Your task to perform on an android device: Go to internet settings Image 0: 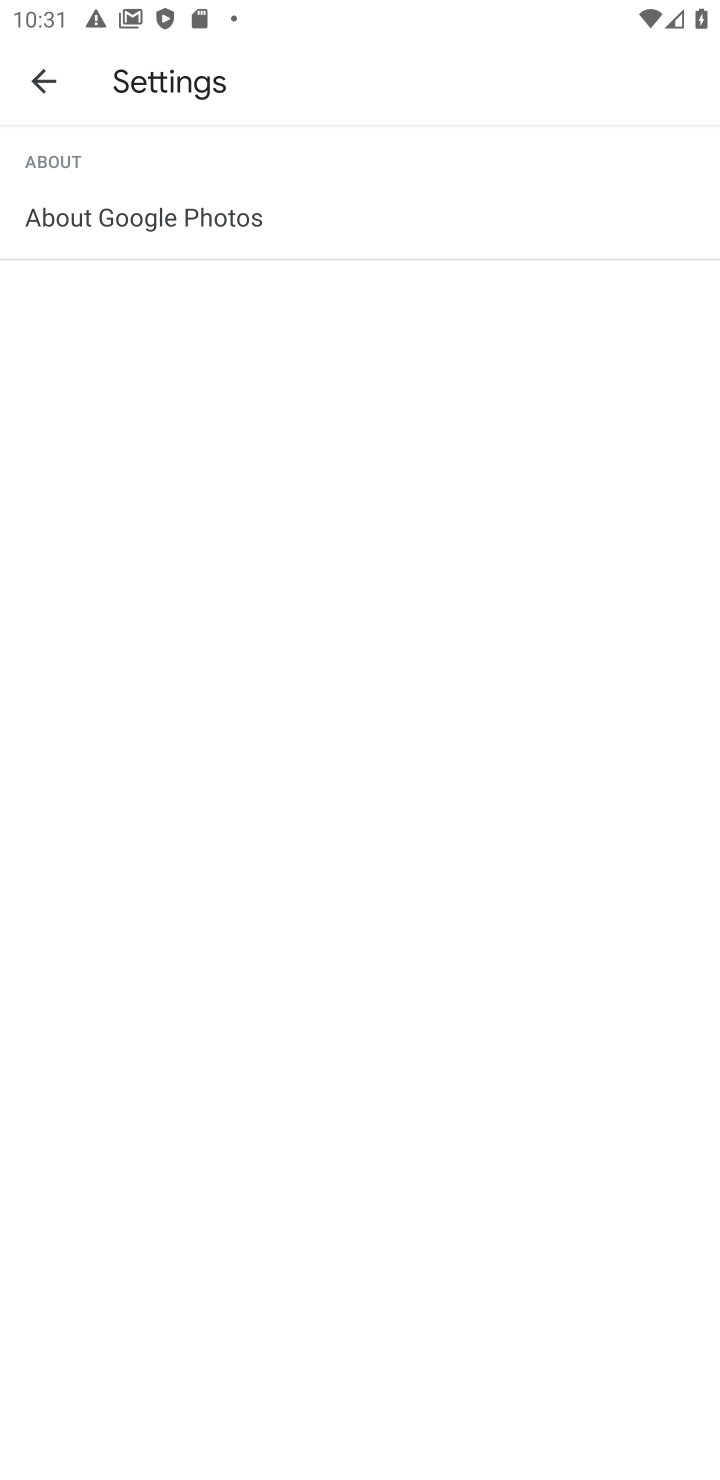
Step 0: press home button
Your task to perform on an android device: Go to internet settings Image 1: 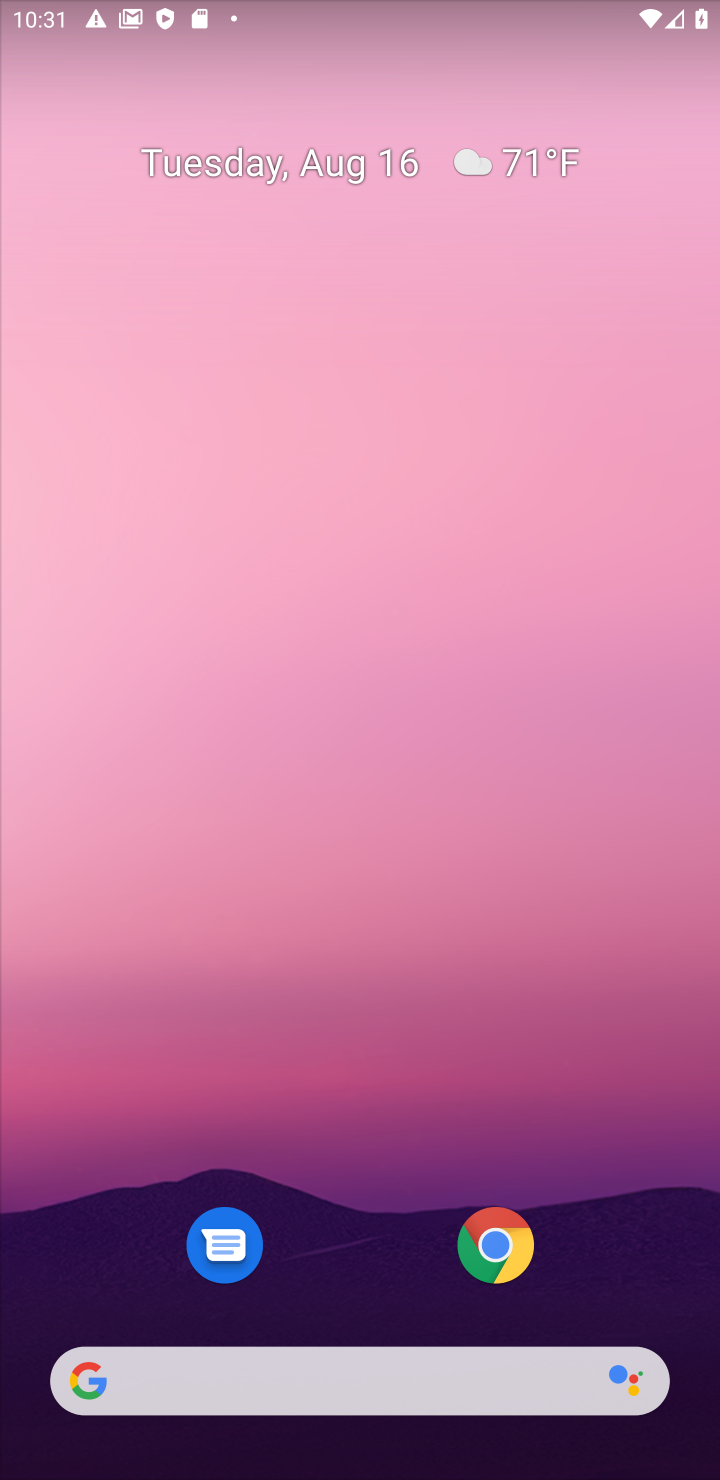
Step 1: drag from (641, 1205) to (591, 233)
Your task to perform on an android device: Go to internet settings Image 2: 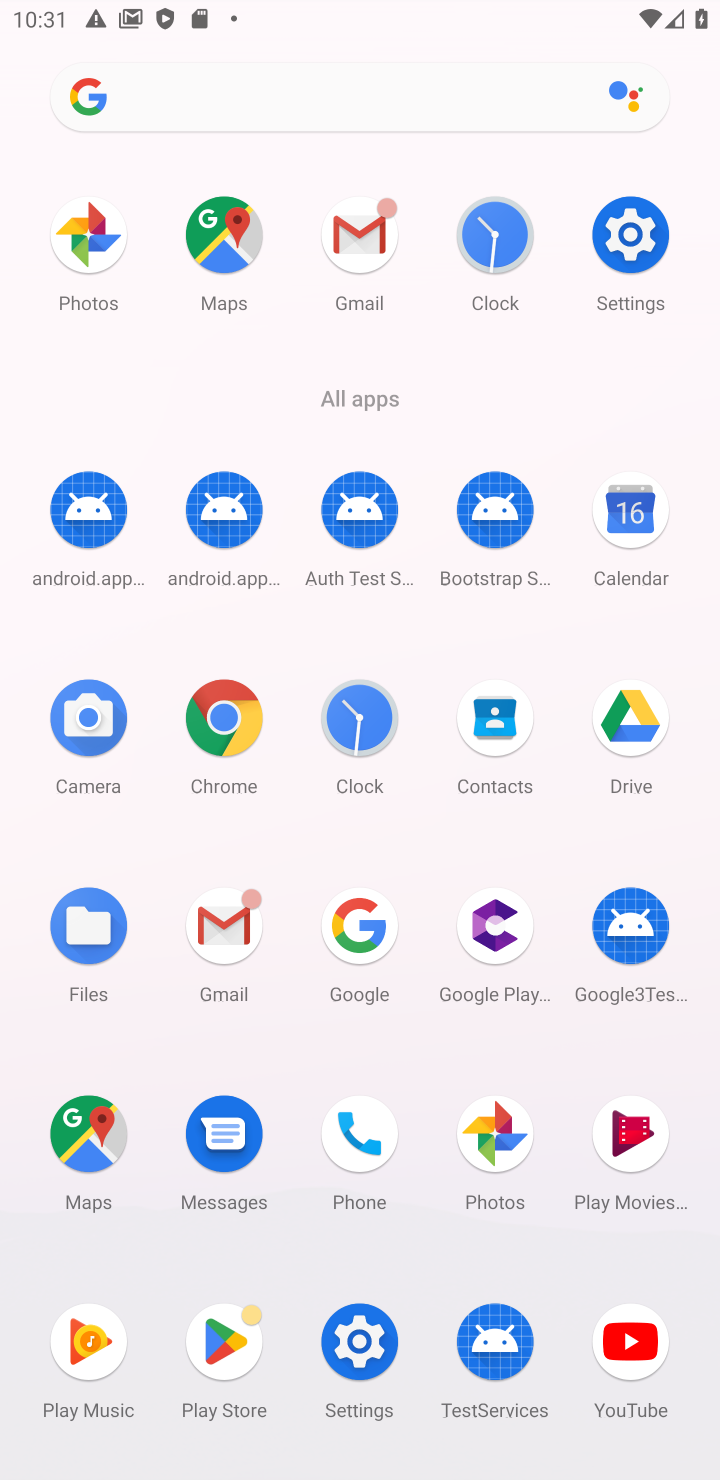
Step 2: click (624, 239)
Your task to perform on an android device: Go to internet settings Image 3: 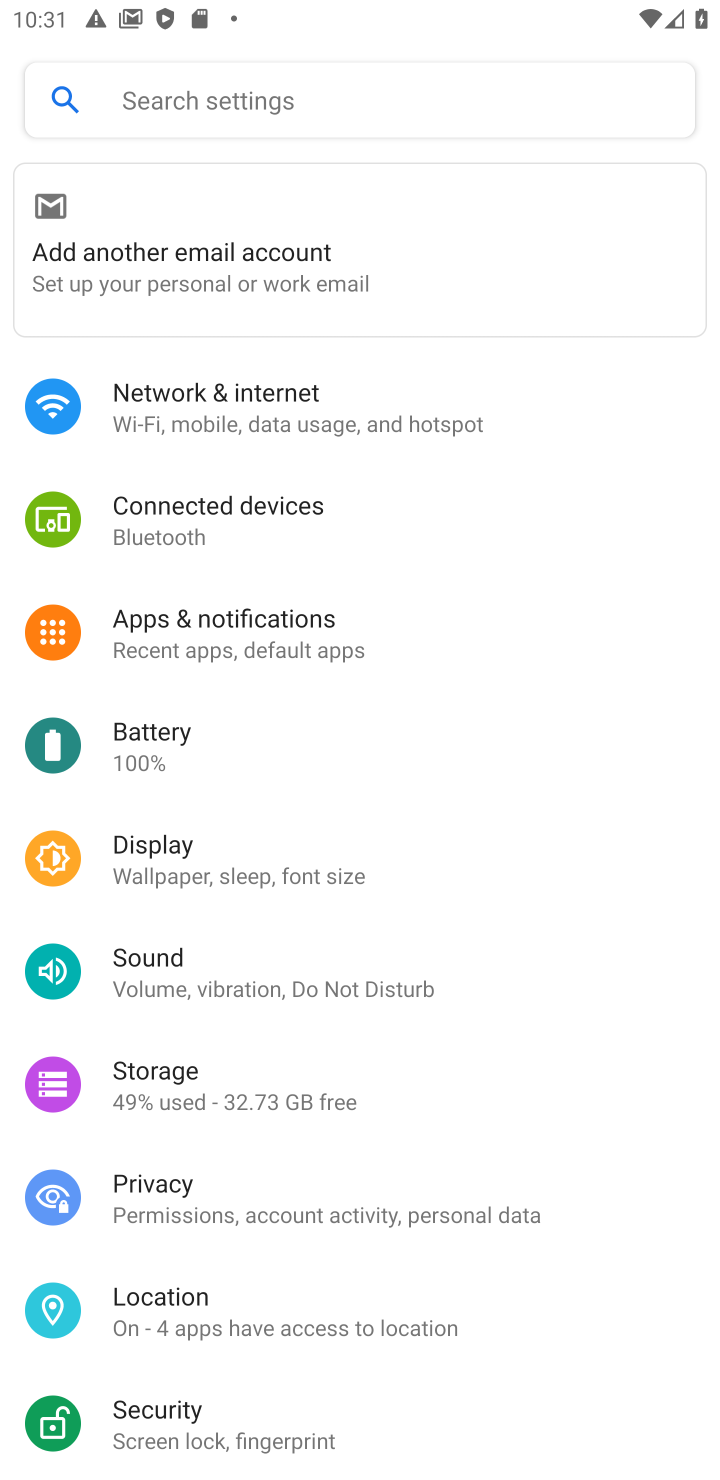
Step 3: click (295, 392)
Your task to perform on an android device: Go to internet settings Image 4: 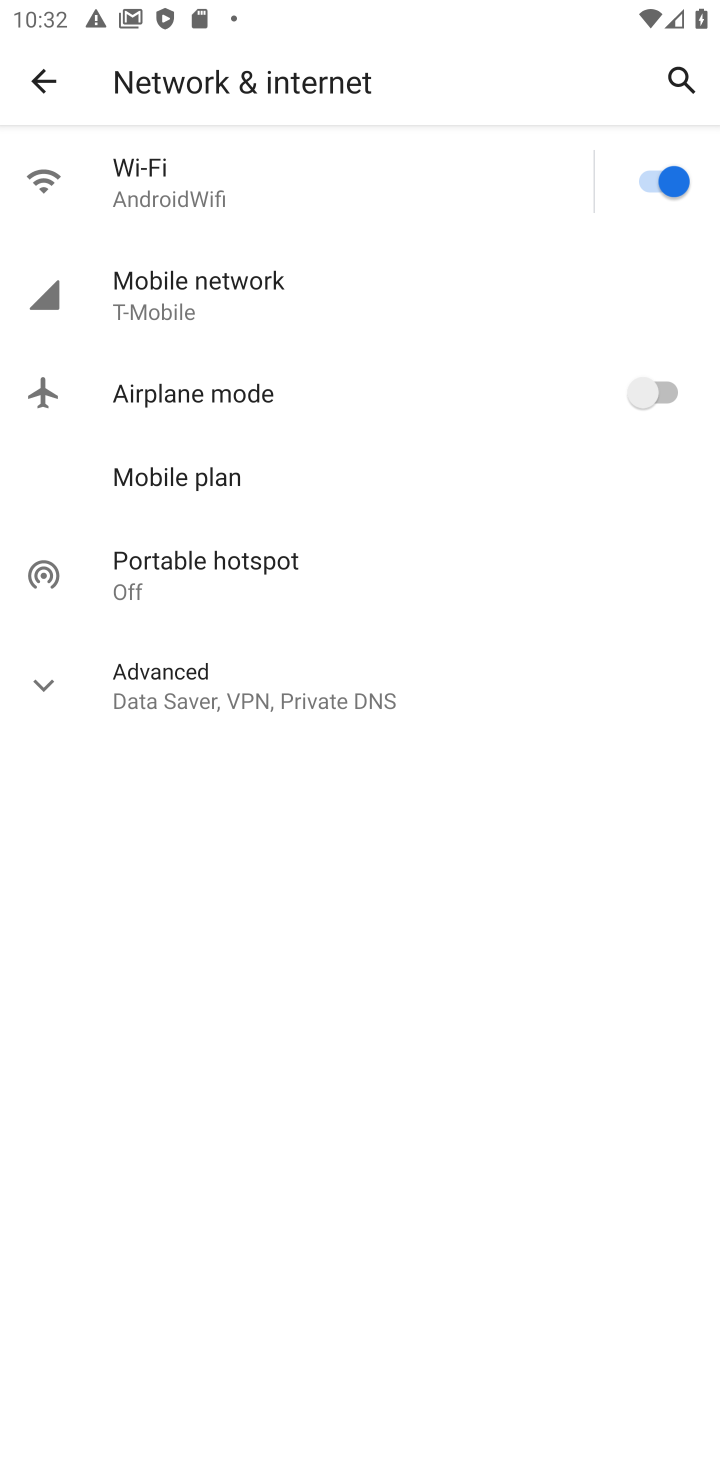
Step 4: task complete